Your task to perform on an android device: turn off location history Image 0: 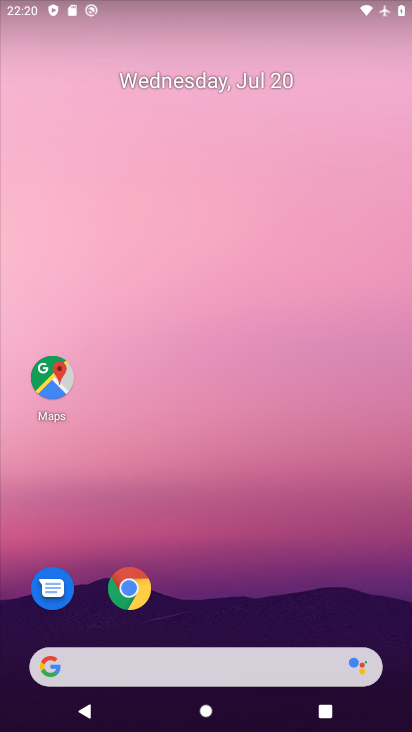
Step 0: click (53, 373)
Your task to perform on an android device: turn off location history Image 1: 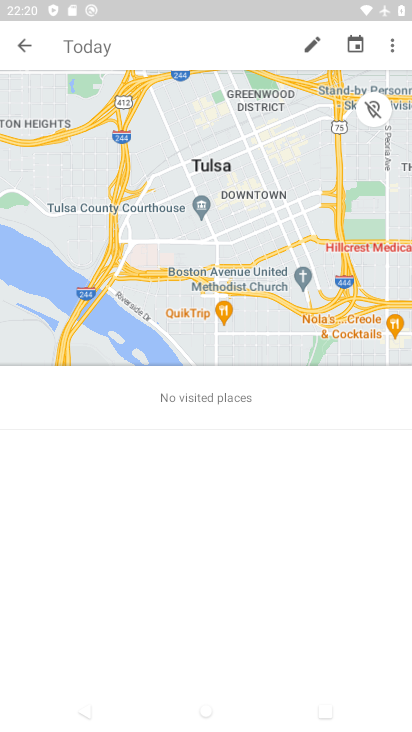
Step 1: press back button
Your task to perform on an android device: turn off location history Image 2: 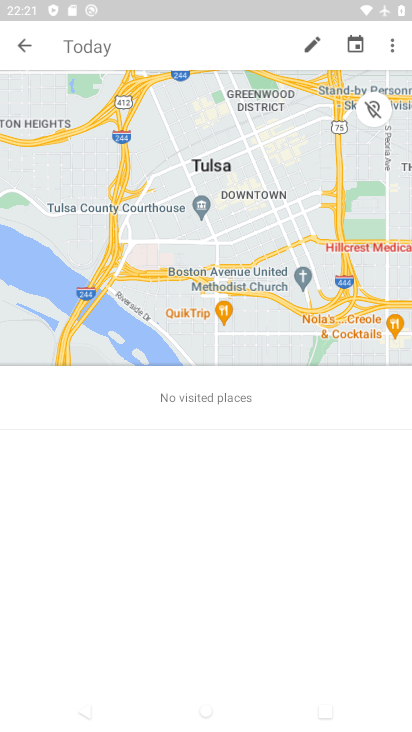
Step 2: press back button
Your task to perform on an android device: turn off location history Image 3: 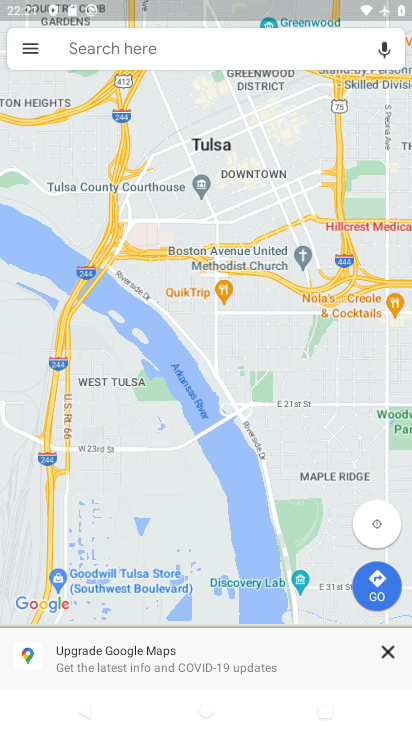
Step 3: click (31, 51)
Your task to perform on an android device: turn off location history Image 4: 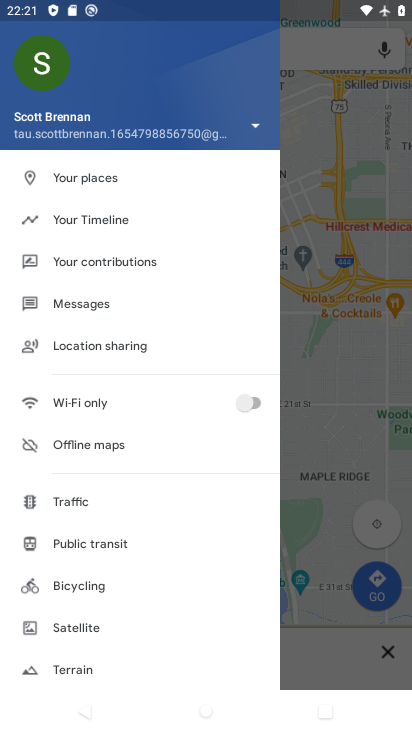
Step 4: drag from (171, 612) to (177, 209)
Your task to perform on an android device: turn off location history Image 5: 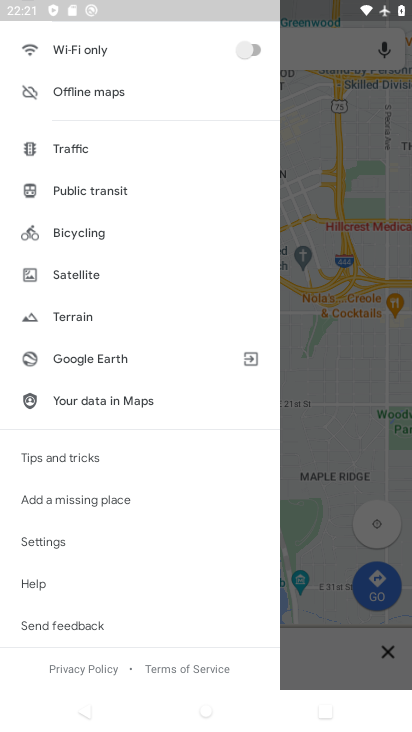
Step 5: click (53, 546)
Your task to perform on an android device: turn off location history Image 6: 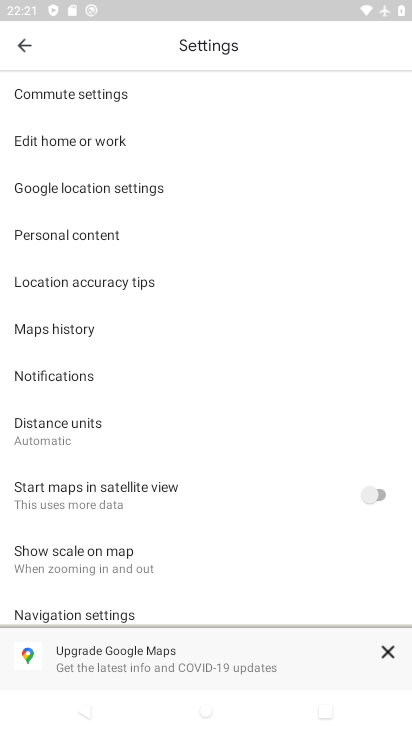
Step 6: click (57, 234)
Your task to perform on an android device: turn off location history Image 7: 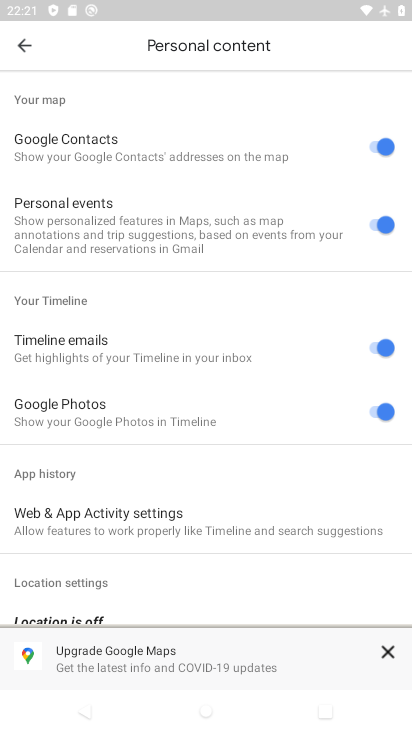
Step 7: task complete